Your task to perform on an android device: clear all cookies in the chrome app Image 0: 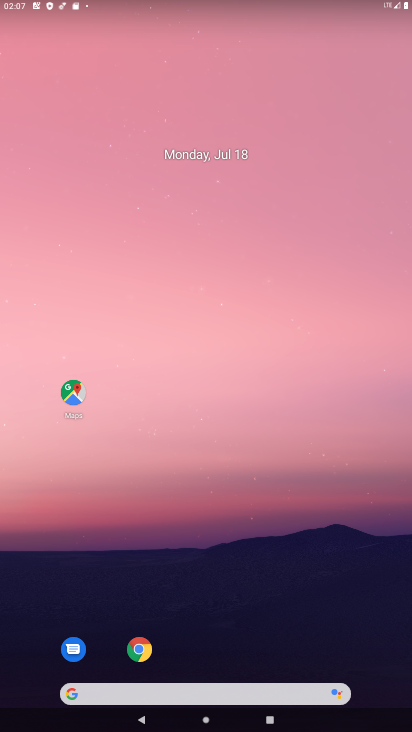
Step 0: click (140, 644)
Your task to perform on an android device: clear all cookies in the chrome app Image 1: 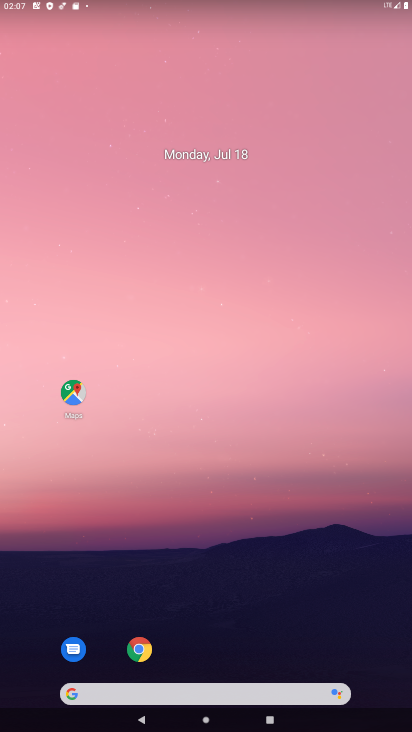
Step 1: click (140, 644)
Your task to perform on an android device: clear all cookies in the chrome app Image 2: 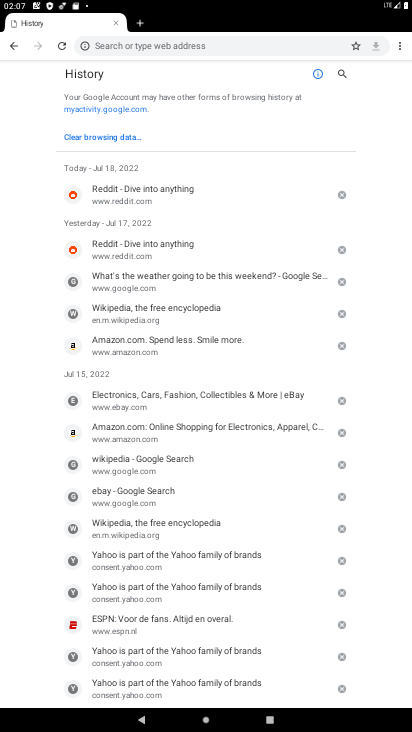
Step 2: click (109, 137)
Your task to perform on an android device: clear all cookies in the chrome app Image 3: 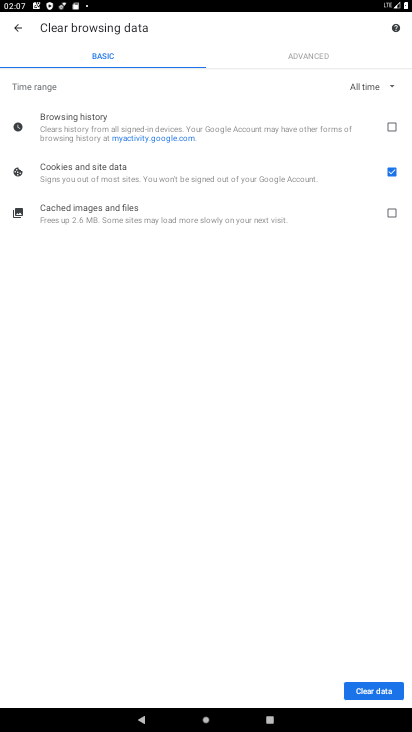
Step 3: click (387, 697)
Your task to perform on an android device: clear all cookies in the chrome app Image 4: 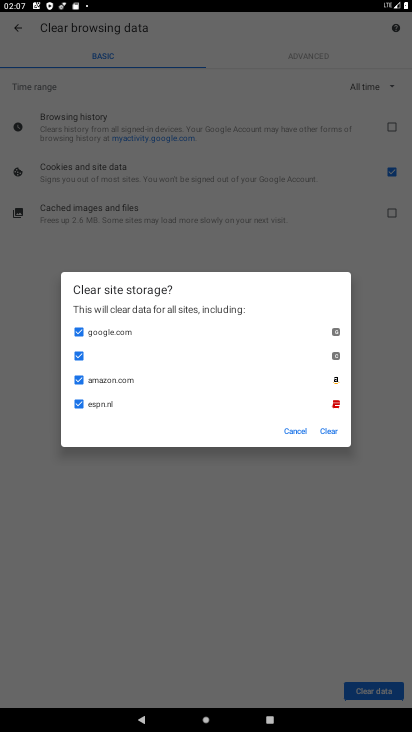
Step 4: click (324, 430)
Your task to perform on an android device: clear all cookies in the chrome app Image 5: 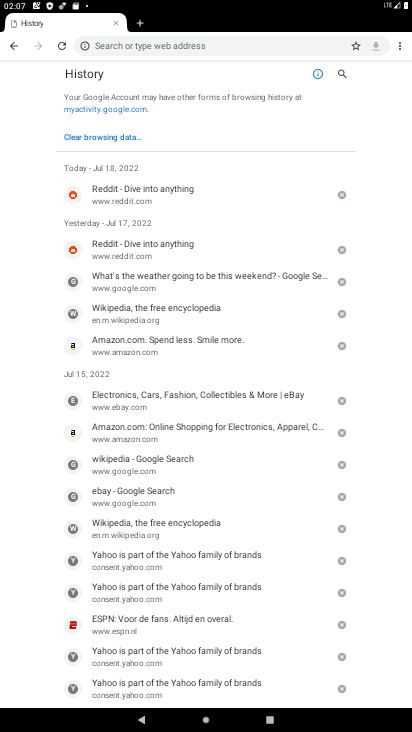
Step 5: task complete